Your task to perform on an android device: Open Google Maps and go to "Timeline" Image 0: 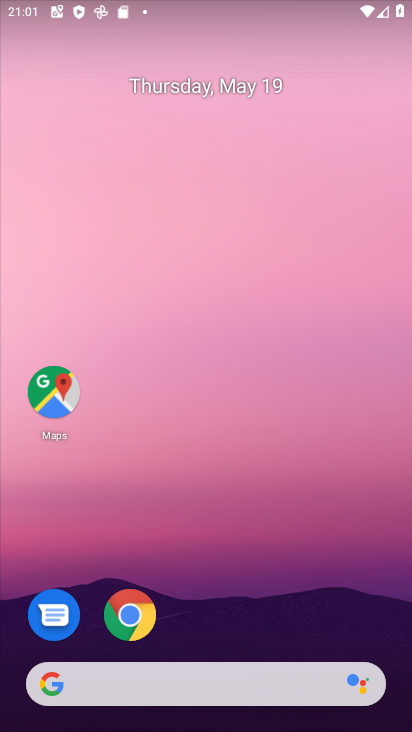
Step 0: drag from (268, 555) to (185, 76)
Your task to perform on an android device: Open Google Maps and go to "Timeline" Image 1: 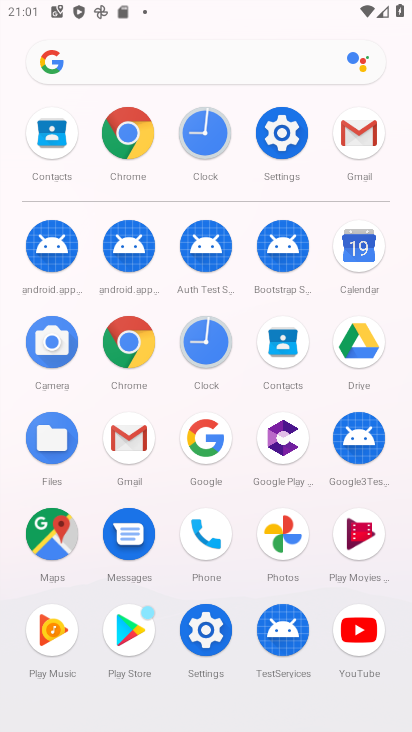
Step 1: click (55, 529)
Your task to perform on an android device: Open Google Maps and go to "Timeline" Image 2: 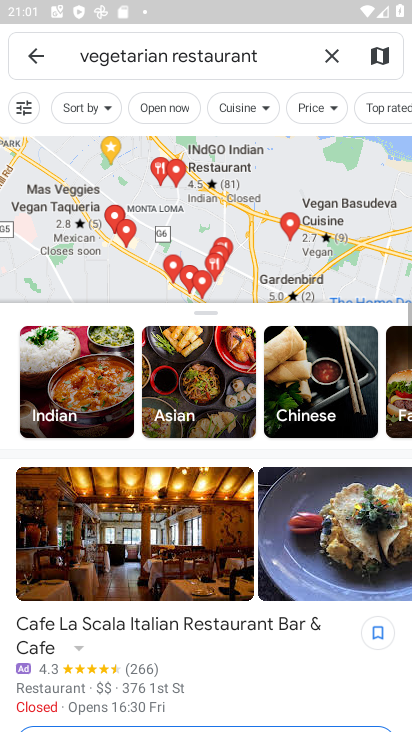
Step 2: click (336, 47)
Your task to perform on an android device: Open Google Maps and go to "Timeline" Image 3: 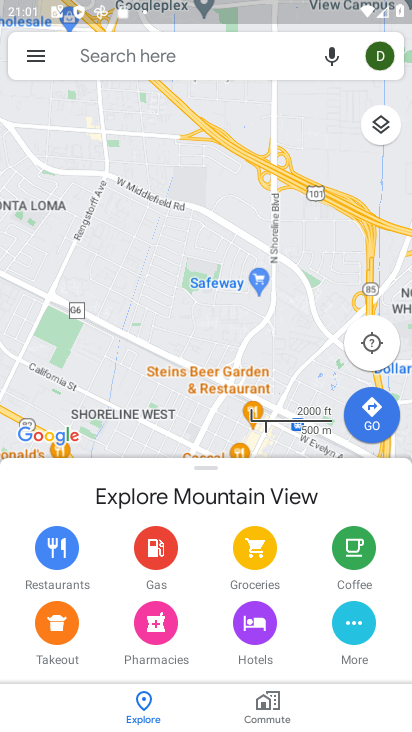
Step 3: click (38, 57)
Your task to perform on an android device: Open Google Maps and go to "Timeline" Image 4: 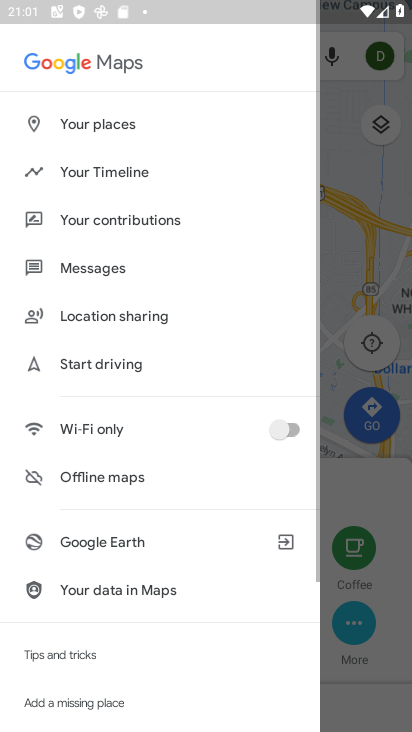
Step 4: click (116, 162)
Your task to perform on an android device: Open Google Maps and go to "Timeline" Image 5: 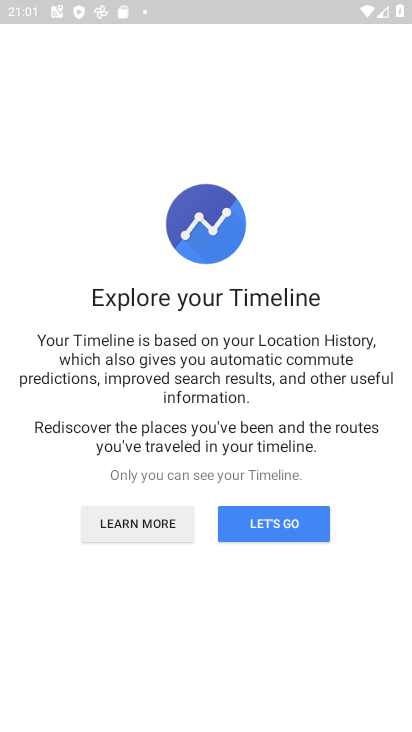
Step 5: drag from (176, 600) to (183, 317)
Your task to perform on an android device: Open Google Maps and go to "Timeline" Image 6: 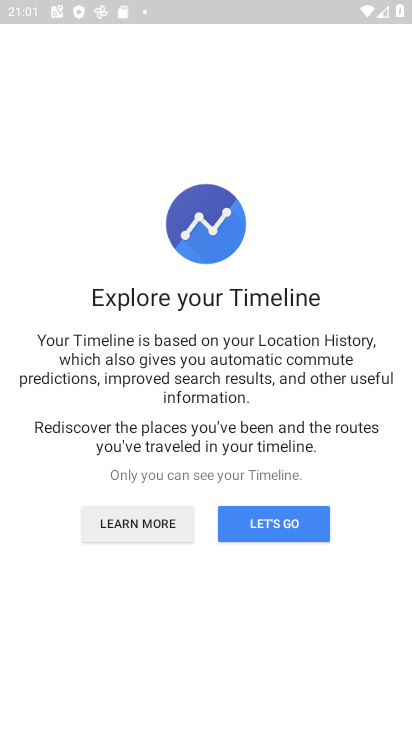
Step 6: click (260, 517)
Your task to perform on an android device: Open Google Maps and go to "Timeline" Image 7: 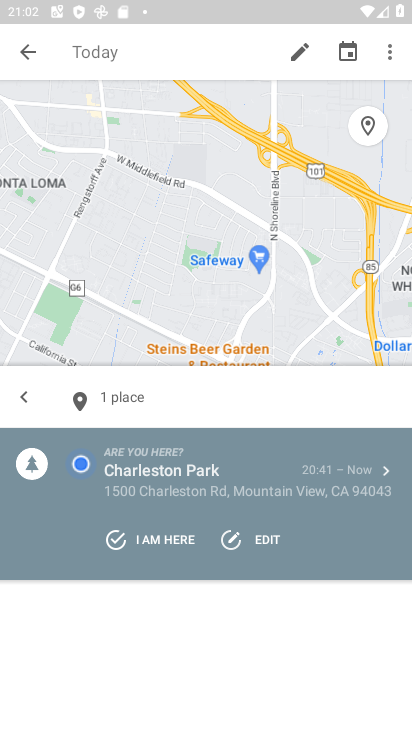
Step 7: task complete